Your task to perform on an android device: toggle notification dots Image 0: 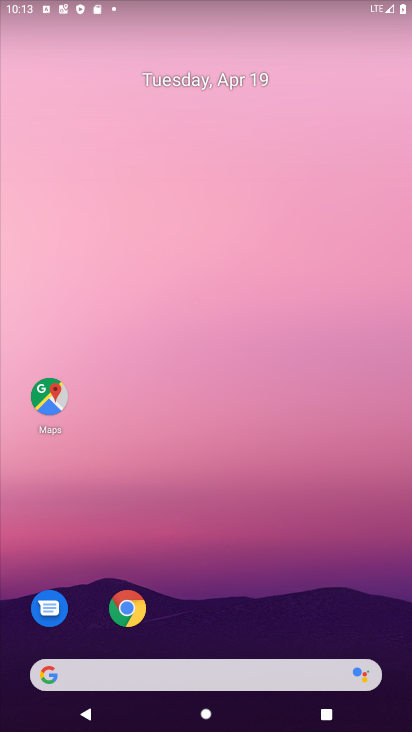
Step 0: drag from (370, 630) to (282, 143)
Your task to perform on an android device: toggle notification dots Image 1: 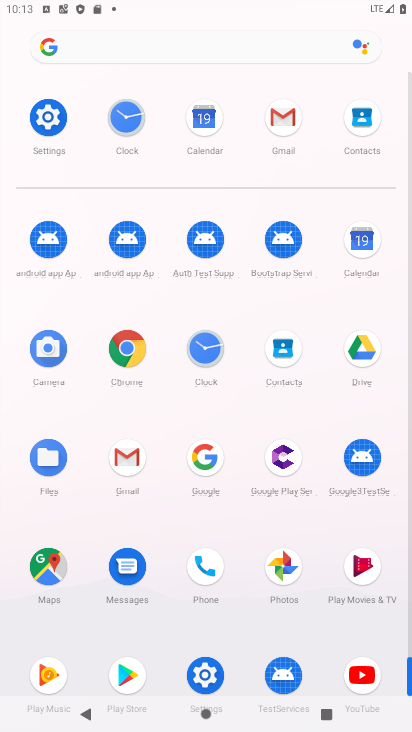
Step 1: click (204, 675)
Your task to perform on an android device: toggle notification dots Image 2: 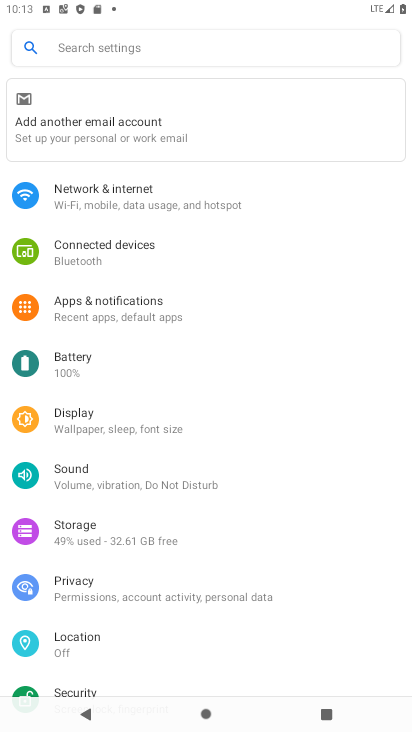
Step 2: click (97, 303)
Your task to perform on an android device: toggle notification dots Image 3: 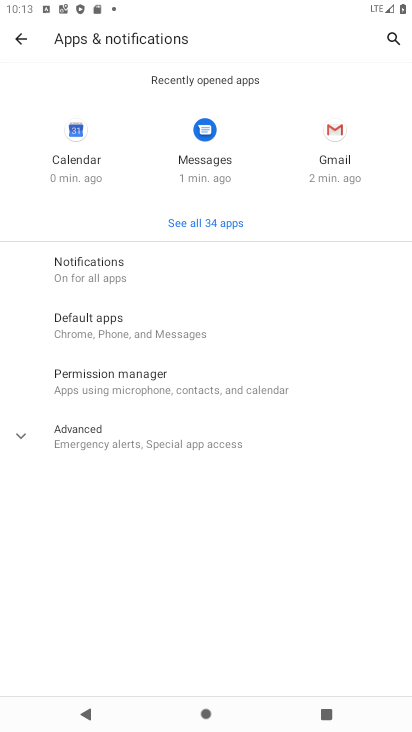
Step 3: click (85, 266)
Your task to perform on an android device: toggle notification dots Image 4: 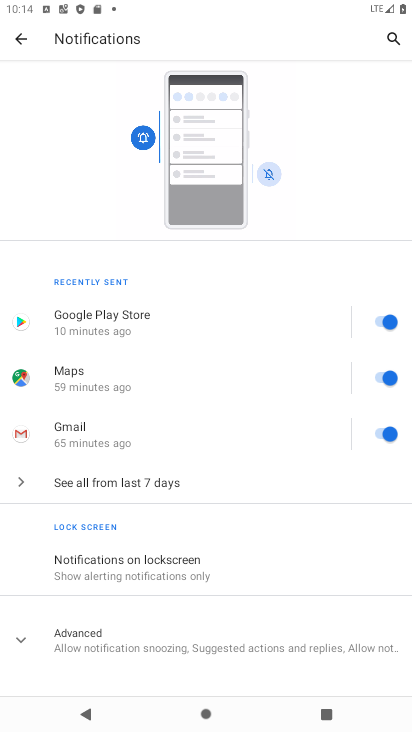
Step 4: click (24, 643)
Your task to perform on an android device: toggle notification dots Image 5: 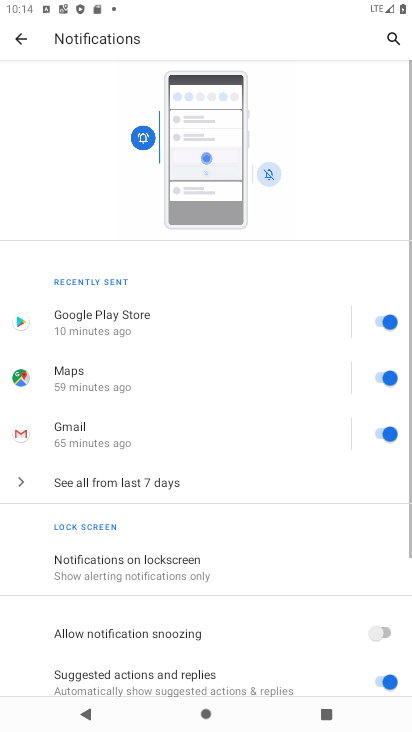
Step 5: drag from (321, 590) to (287, 233)
Your task to perform on an android device: toggle notification dots Image 6: 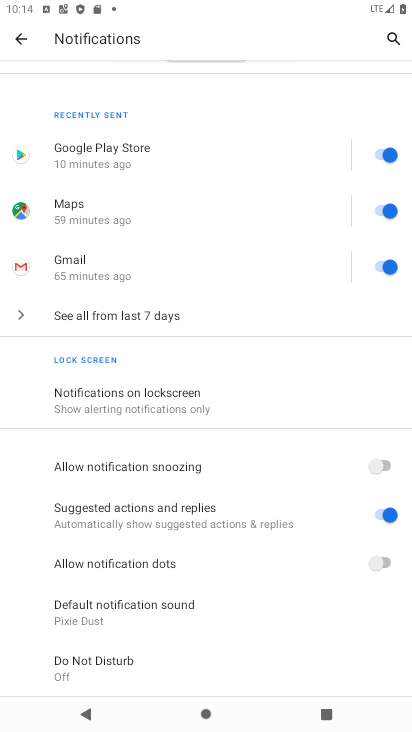
Step 6: click (386, 563)
Your task to perform on an android device: toggle notification dots Image 7: 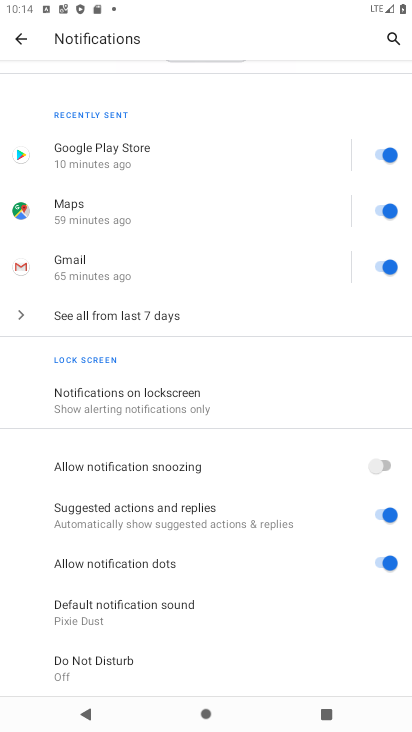
Step 7: task complete